Your task to perform on an android device: Open network settings Image 0: 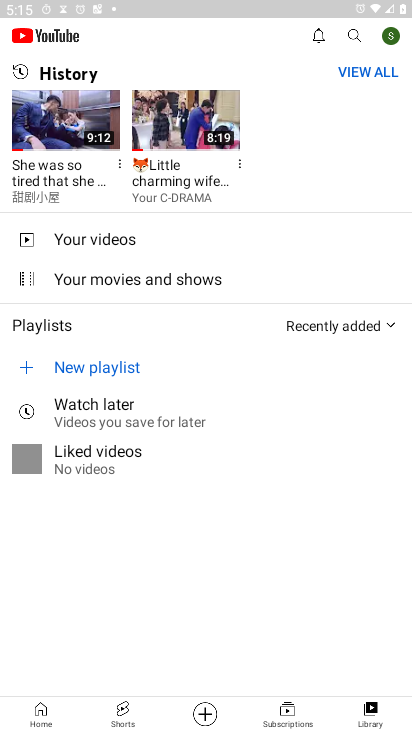
Step 0: press home button
Your task to perform on an android device: Open network settings Image 1: 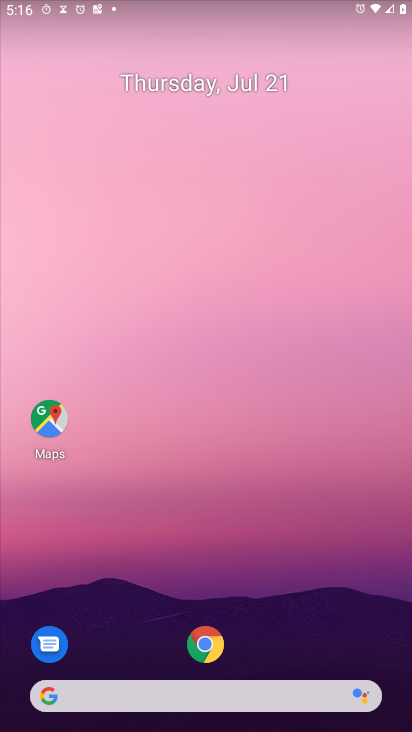
Step 1: drag from (283, 611) to (255, 43)
Your task to perform on an android device: Open network settings Image 2: 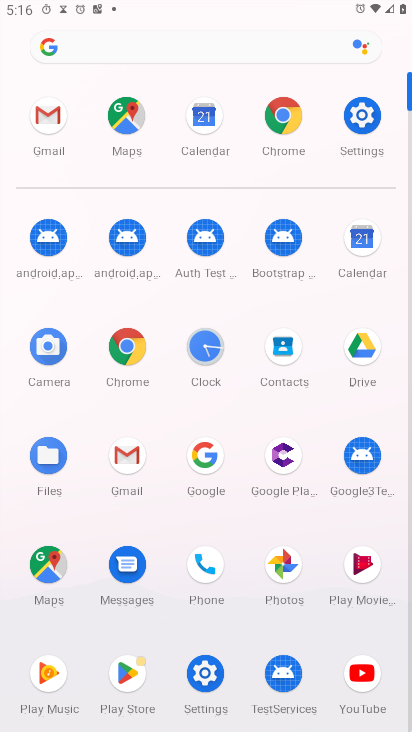
Step 2: click (361, 119)
Your task to perform on an android device: Open network settings Image 3: 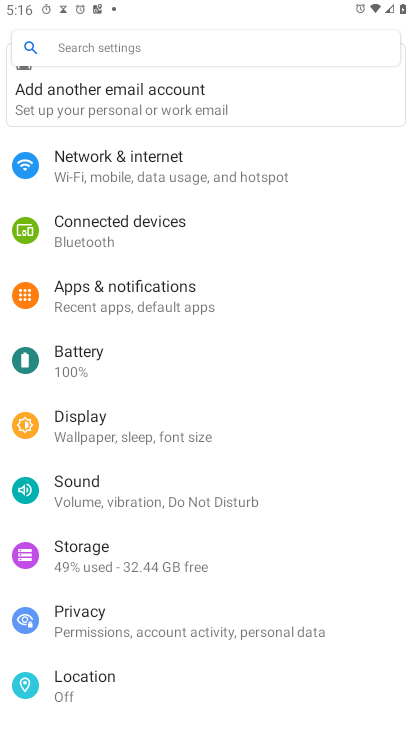
Step 3: click (121, 164)
Your task to perform on an android device: Open network settings Image 4: 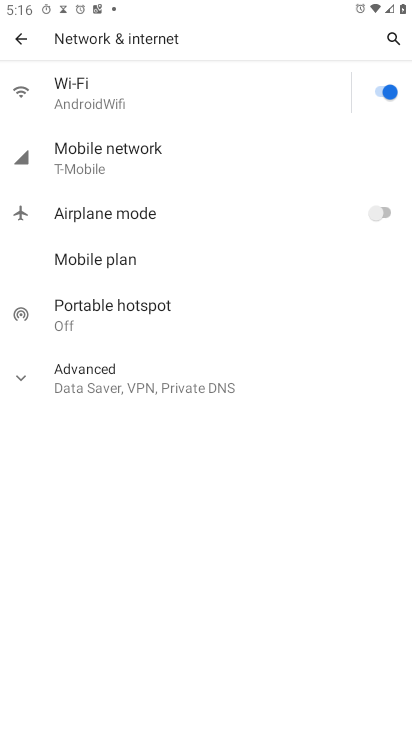
Step 4: task complete